Your task to perform on an android device: Go to settings Image 0: 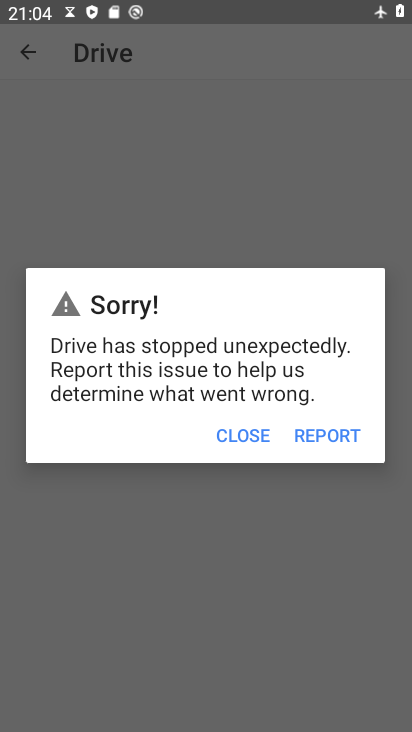
Step 0: press back button
Your task to perform on an android device: Go to settings Image 1: 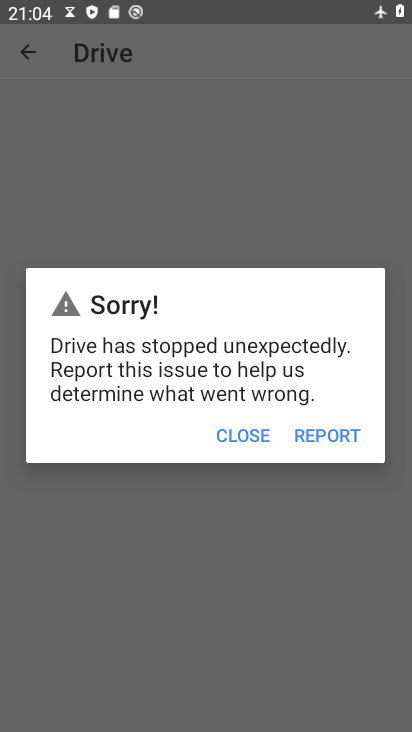
Step 1: press home button
Your task to perform on an android device: Go to settings Image 2: 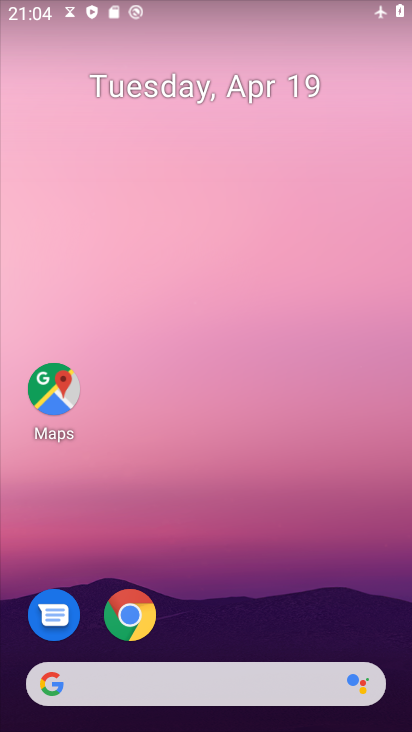
Step 2: drag from (318, 584) to (288, 1)
Your task to perform on an android device: Go to settings Image 3: 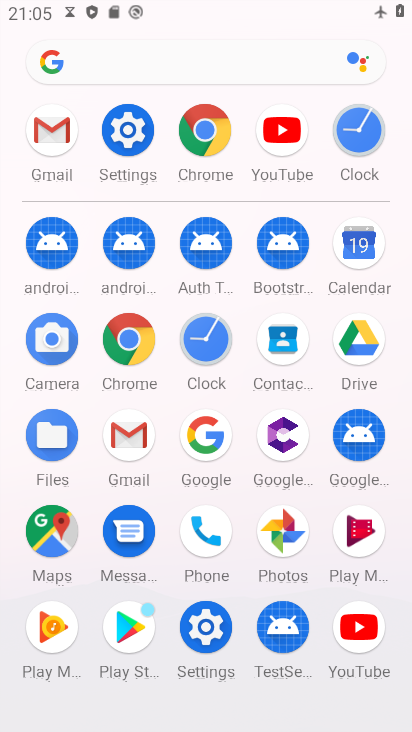
Step 3: drag from (4, 447) to (20, 220)
Your task to perform on an android device: Go to settings Image 4: 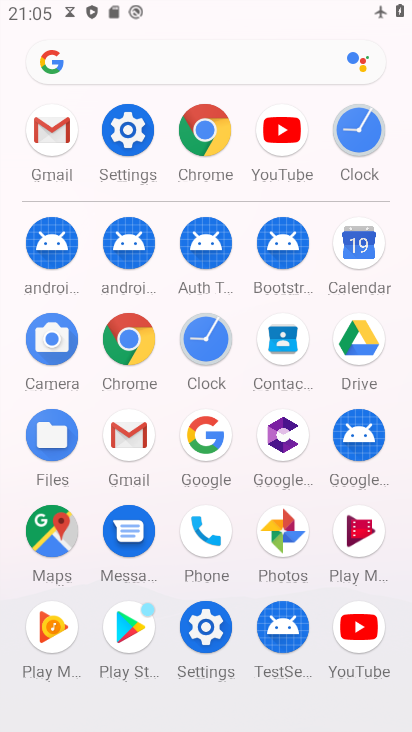
Step 4: click (206, 623)
Your task to perform on an android device: Go to settings Image 5: 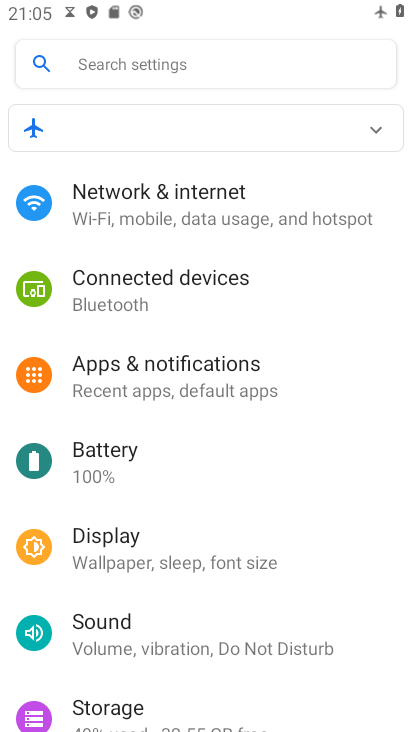
Step 5: task complete